Your task to perform on an android device: turn off airplane mode Image 0: 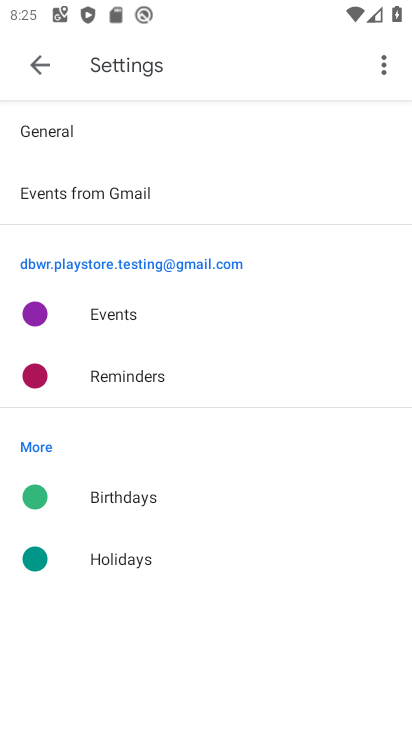
Step 0: press back button
Your task to perform on an android device: turn off airplane mode Image 1: 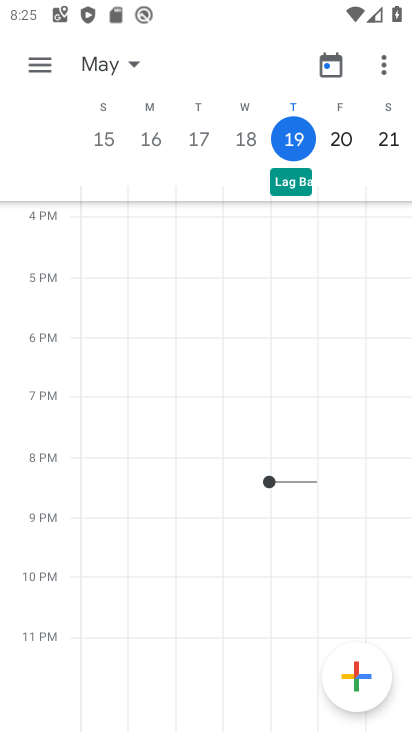
Step 1: press home button
Your task to perform on an android device: turn off airplane mode Image 2: 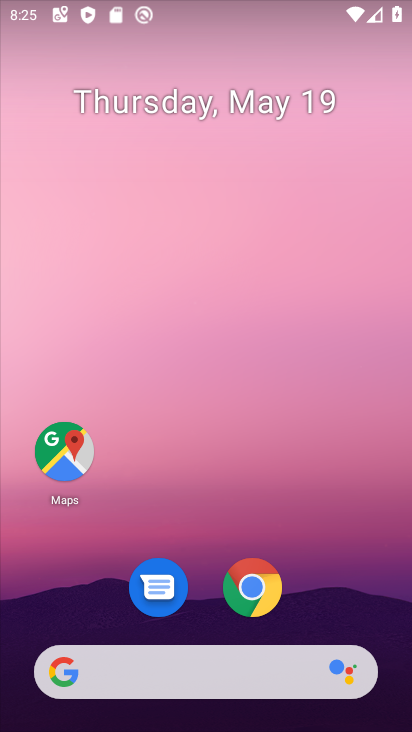
Step 2: drag from (295, 489) to (252, 33)
Your task to perform on an android device: turn off airplane mode Image 3: 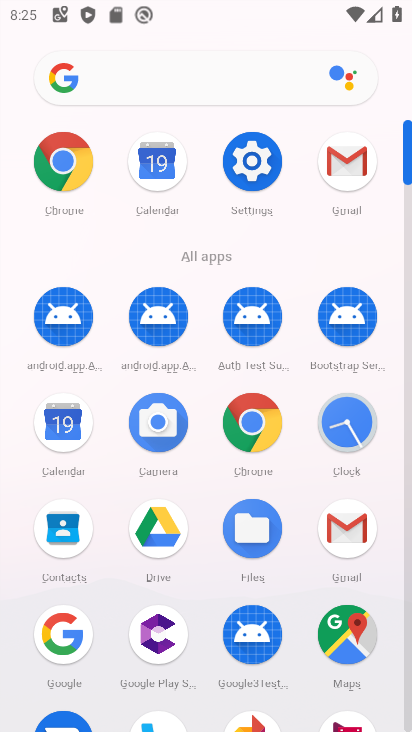
Step 3: click (255, 157)
Your task to perform on an android device: turn off airplane mode Image 4: 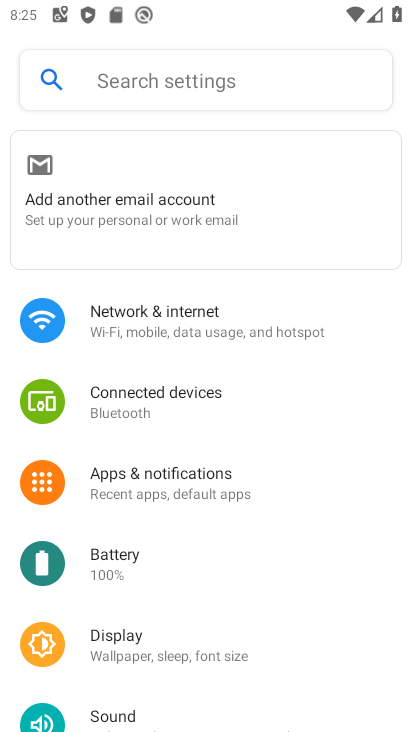
Step 4: click (235, 331)
Your task to perform on an android device: turn off airplane mode Image 5: 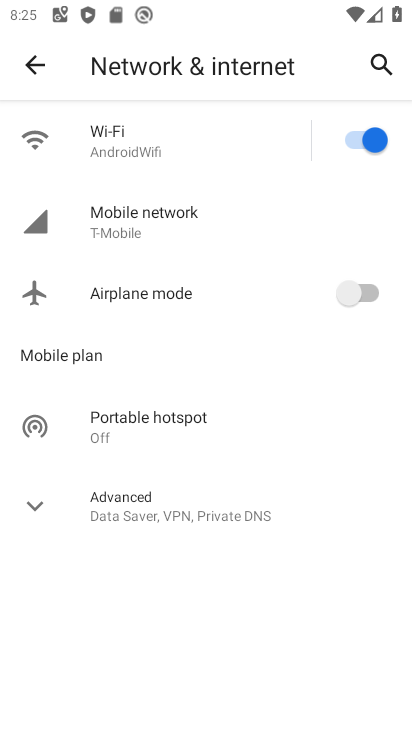
Step 5: click (38, 486)
Your task to perform on an android device: turn off airplane mode Image 6: 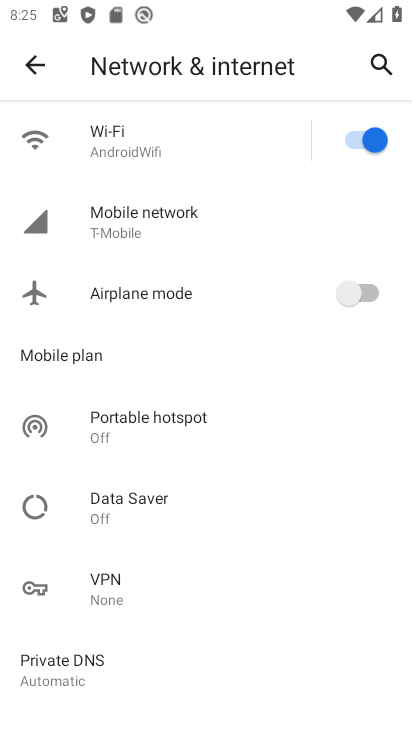
Step 6: task complete